Your task to perform on an android device: find snoozed emails in the gmail app Image 0: 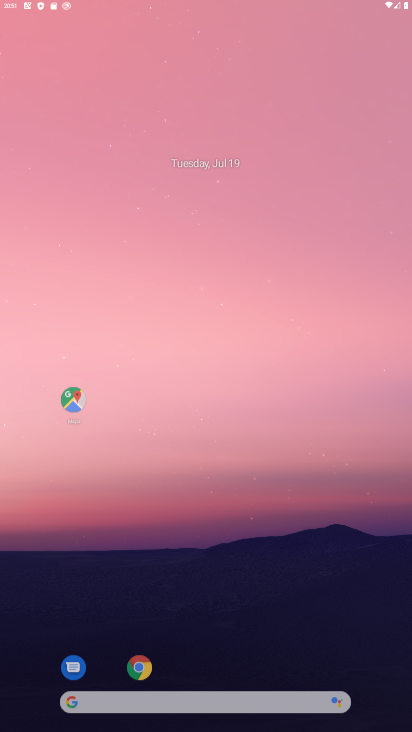
Step 0: click (409, 288)
Your task to perform on an android device: find snoozed emails in the gmail app Image 1: 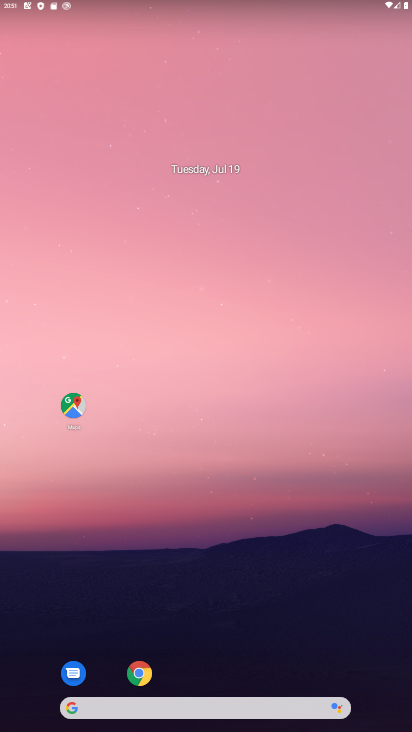
Step 1: drag from (245, 669) to (284, 23)
Your task to perform on an android device: find snoozed emails in the gmail app Image 2: 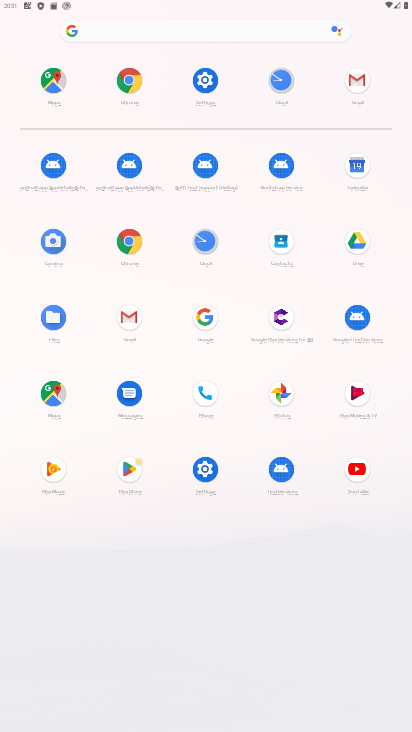
Step 2: click (127, 326)
Your task to perform on an android device: find snoozed emails in the gmail app Image 3: 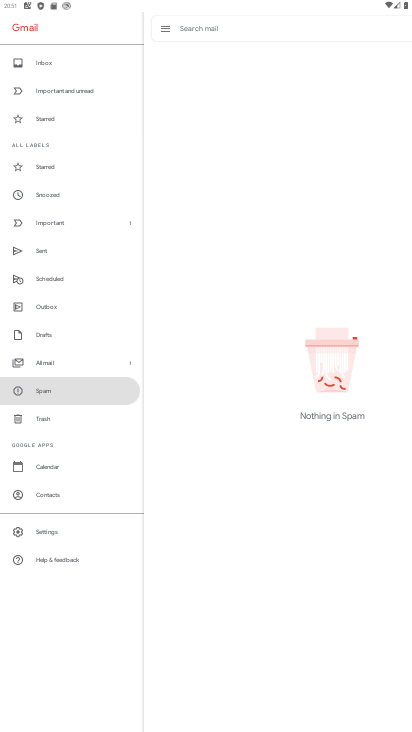
Step 3: click (54, 197)
Your task to perform on an android device: find snoozed emails in the gmail app Image 4: 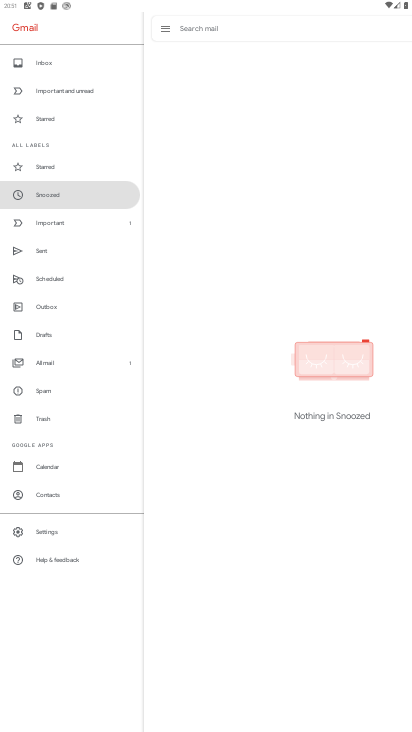
Step 4: task complete